Your task to perform on an android device: turn on bluetooth scan Image 0: 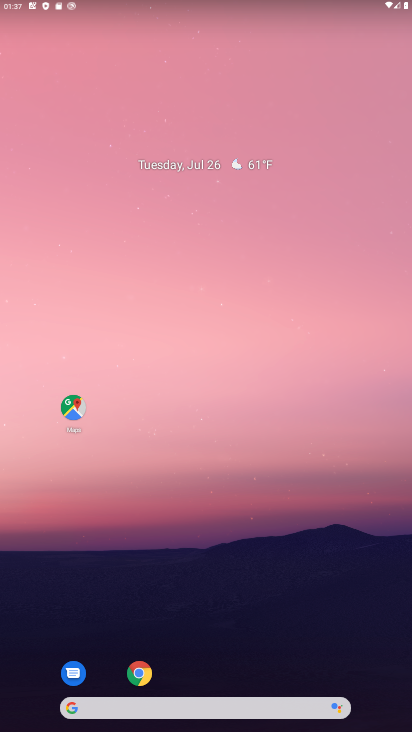
Step 0: drag from (175, 684) to (167, 185)
Your task to perform on an android device: turn on bluetooth scan Image 1: 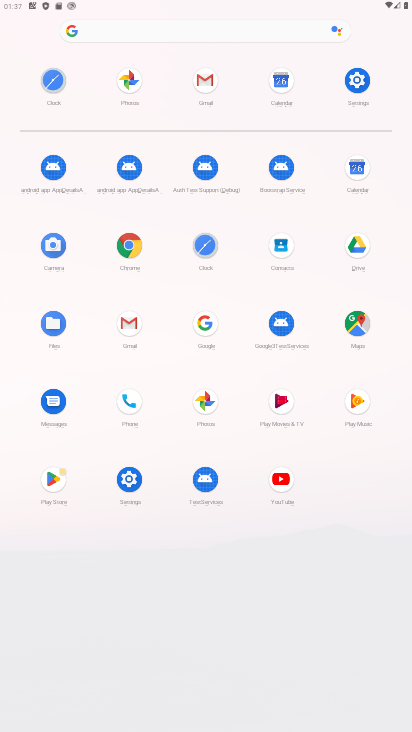
Step 1: click (353, 81)
Your task to perform on an android device: turn on bluetooth scan Image 2: 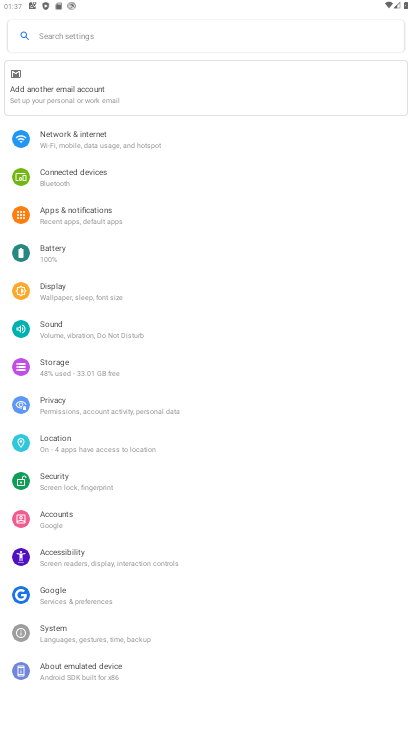
Step 2: click (66, 440)
Your task to perform on an android device: turn on bluetooth scan Image 3: 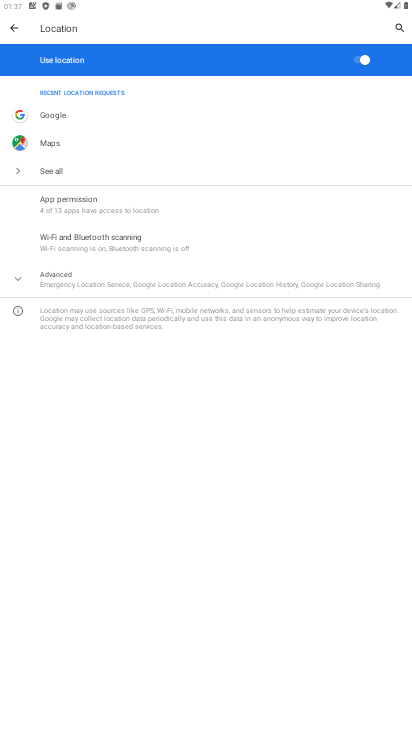
Step 3: click (120, 241)
Your task to perform on an android device: turn on bluetooth scan Image 4: 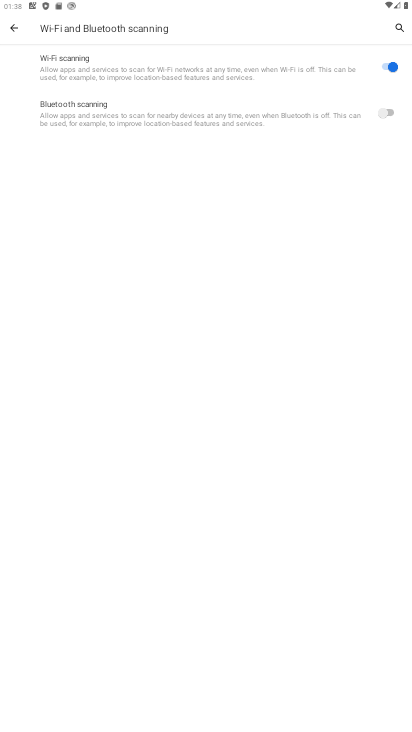
Step 4: click (390, 112)
Your task to perform on an android device: turn on bluetooth scan Image 5: 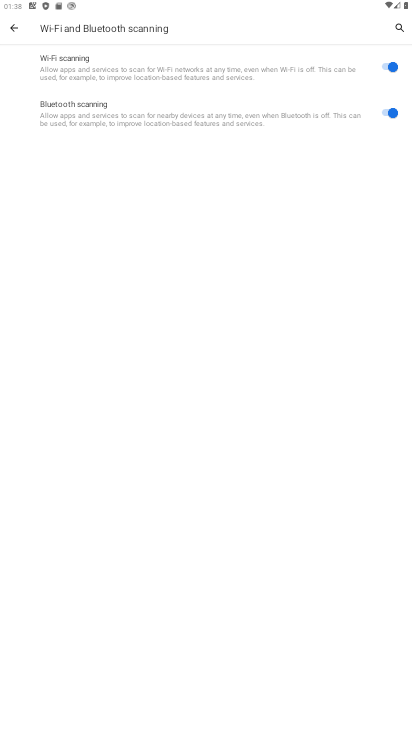
Step 5: task complete